Your task to perform on an android device: Do I have any events tomorrow? Image 0: 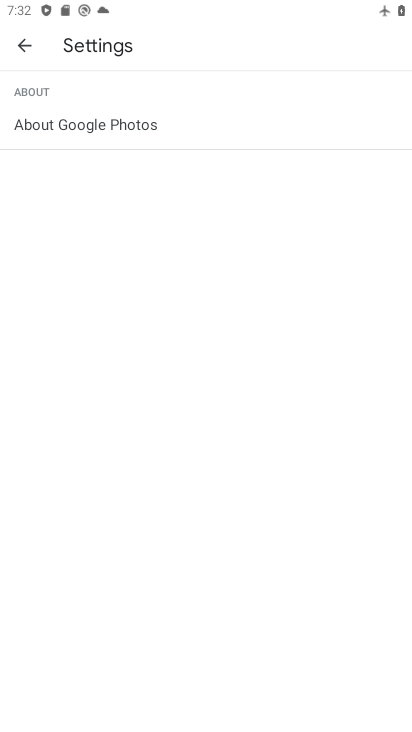
Step 0: press back button
Your task to perform on an android device: Do I have any events tomorrow? Image 1: 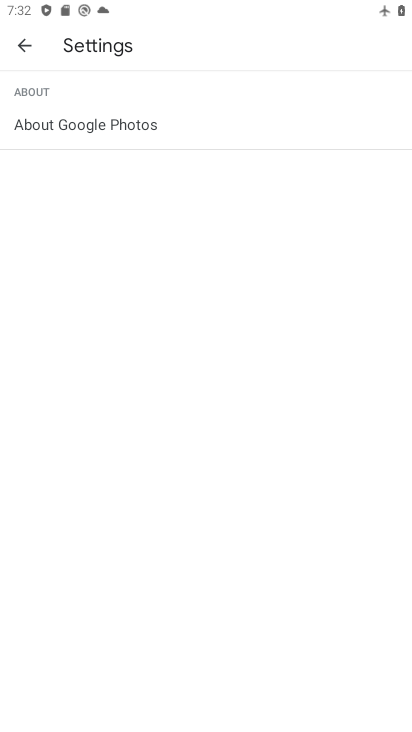
Step 1: press back button
Your task to perform on an android device: Do I have any events tomorrow? Image 2: 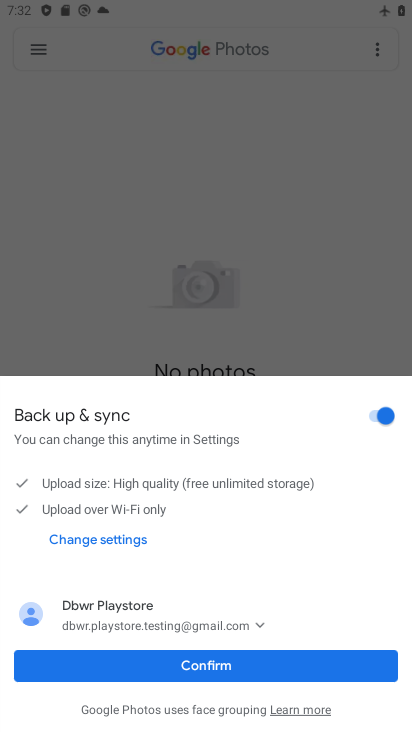
Step 2: press home button
Your task to perform on an android device: Do I have any events tomorrow? Image 3: 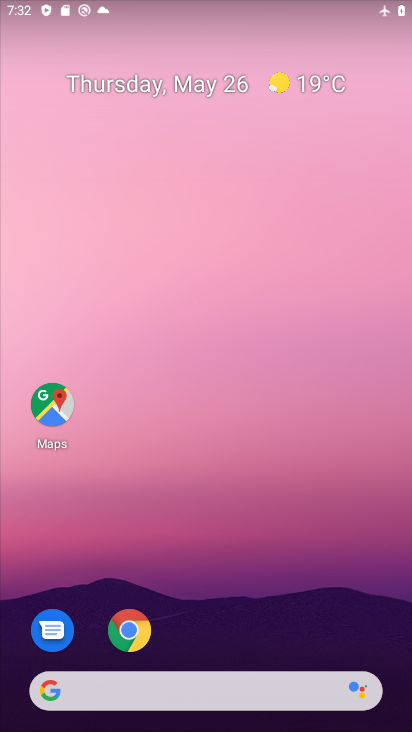
Step 3: drag from (242, 606) to (201, 37)
Your task to perform on an android device: Do I have any events tomorrow? Image 4: 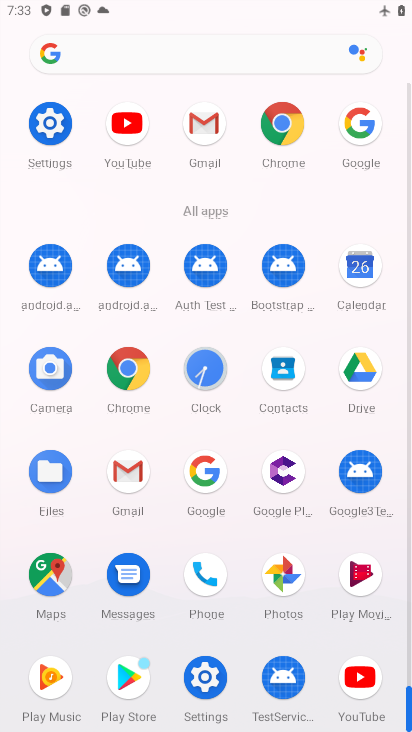
Step 4: click (361, 266)
Your task to perform on an android device: Do I have any events tomorrow? Image 5: 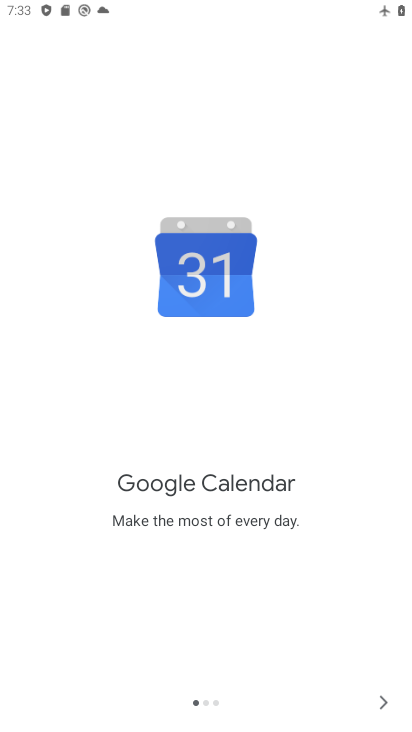
Step 5: click (387, 701)
Your task to perform on an android device: Do I have any events tomorrow? Image 6: 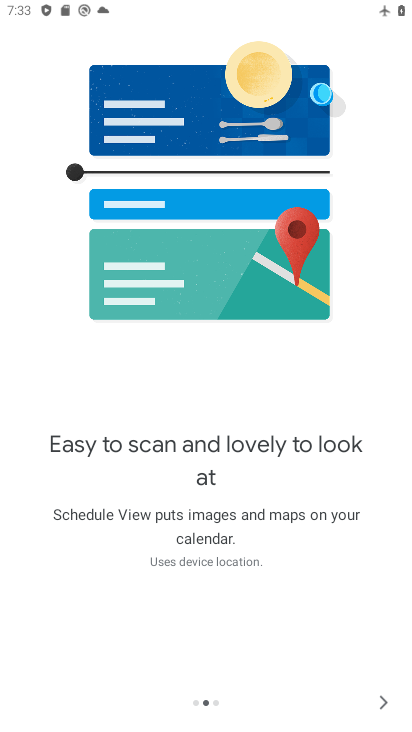
Step 6: click (387, 701)
Your task to perform on an android device: Do I have any events tomorrow? Image 7: 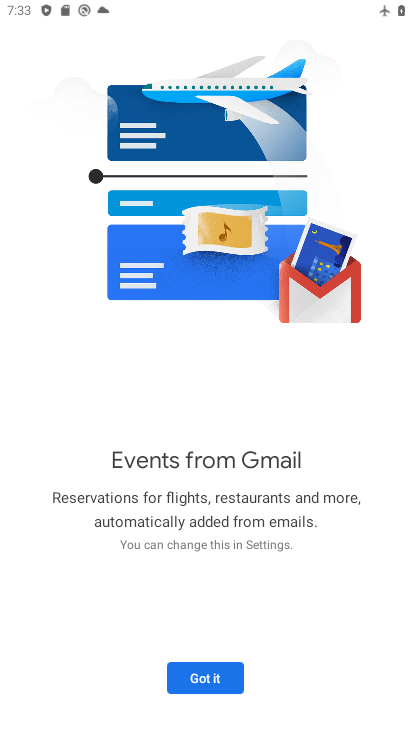
Step 7: click (216, 675)
Your task to perform on an android device: Do I have any events tomorrow? Image 8: 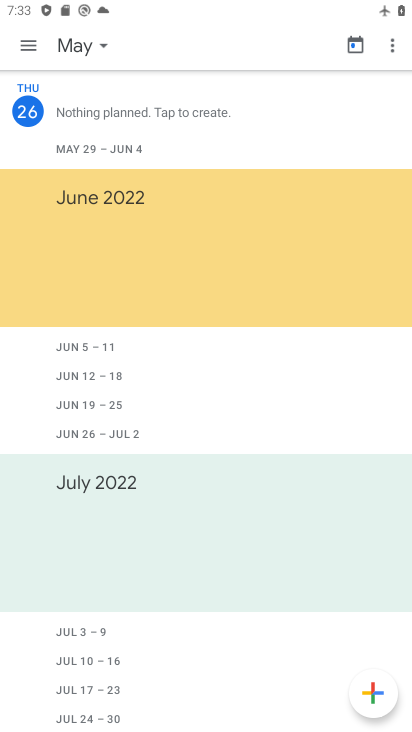
Step 8: click (106, 47)
Your task to perform on an android device: Do I have any events tomorrow? Image 9: 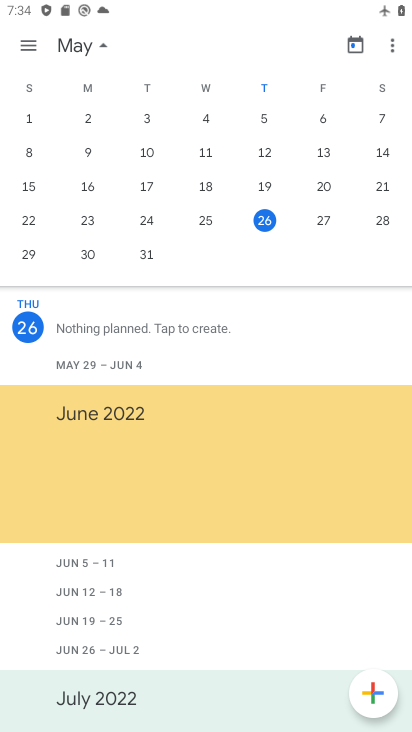
Step 9: click (323, 226)
Your task to perform on an android device: Do I have any events tomorrow? Image 10: 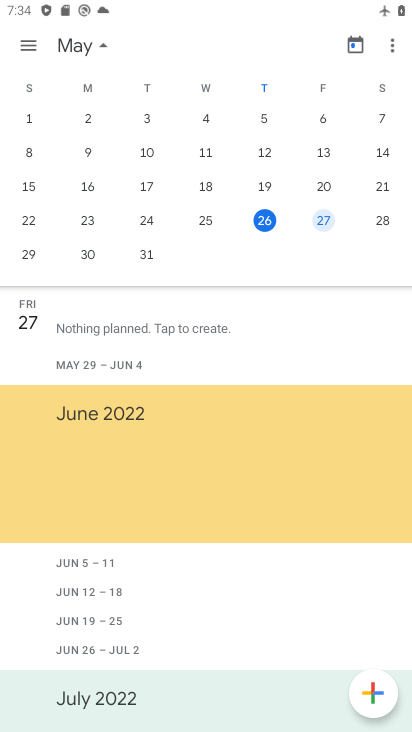
Step 10: click (25, 45)
Your task to perform on an android device: Do I have any events tomorrow? Image 11: 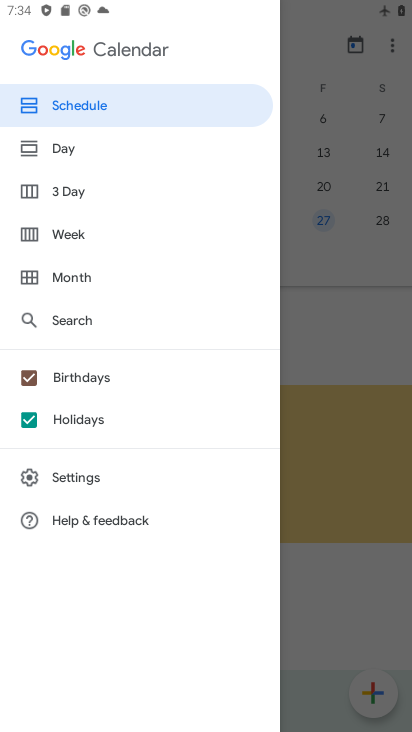
Step 11: click (67, 111)
Your task to perform on an android device: Do I have any events tomorrow? Image 12: 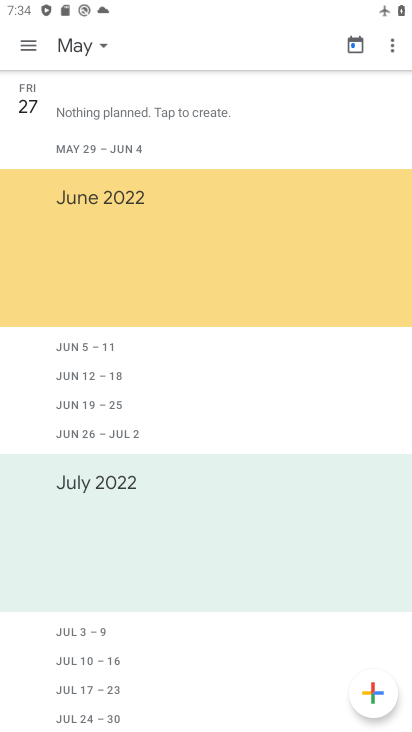
Step 12: task complete